Your task to perform on an android device: Open Google Image 0: 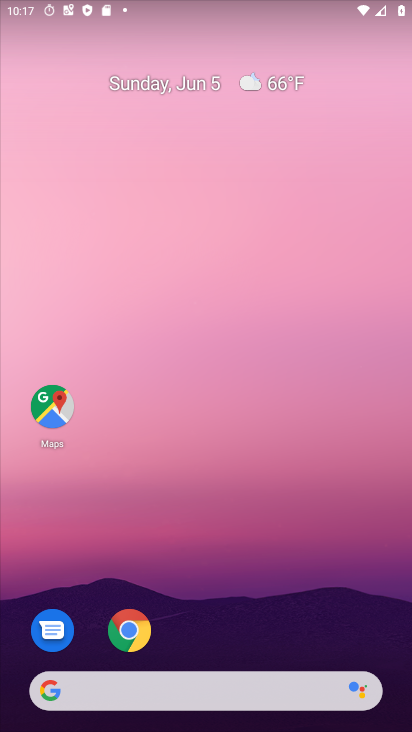
Step 0: drag from (206, 728) to (204, 41)
Your task to perform on an android device: Open Google Image 1: 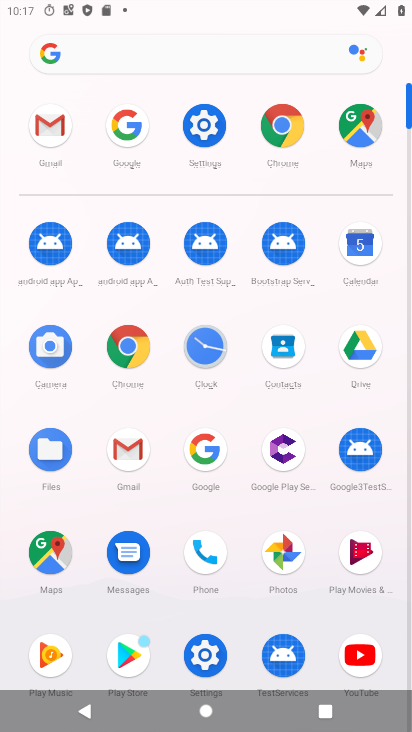
Step 1: click (195, 451)
Your task to perform on an android device: Open Google Image 2: 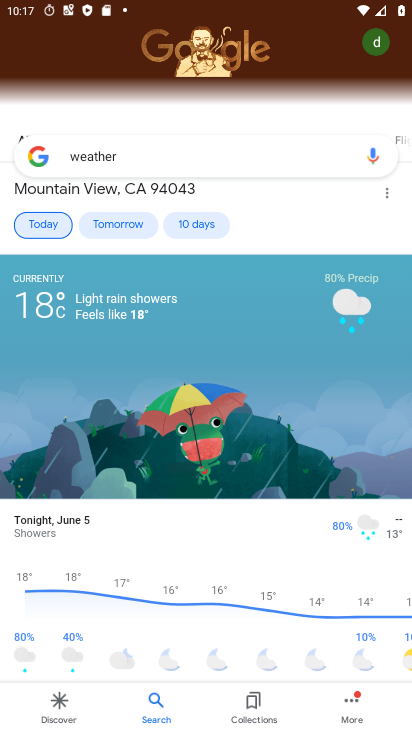
Step 2: task complete